Your task to perform on an android device: find photos in the google photos app Image 0: 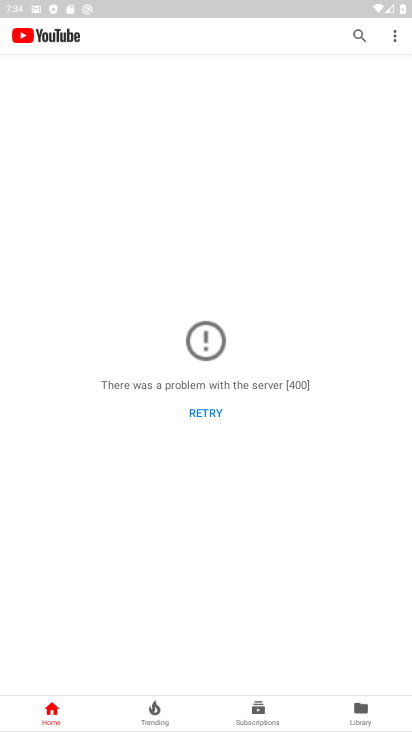
Step 0: click (298, 333)
Your task to perform on an android device: find photos in the google photos app Image 1: 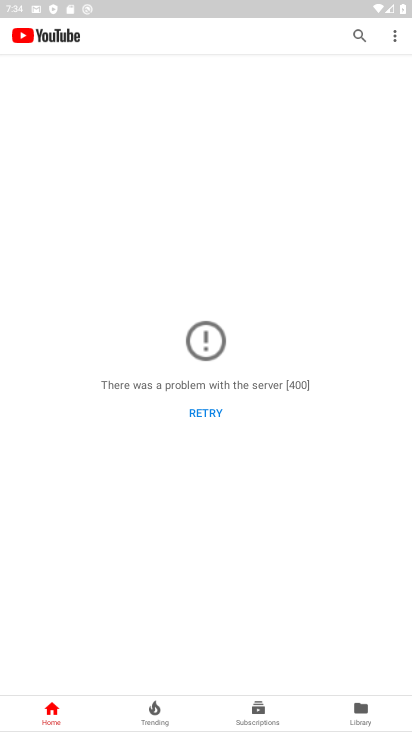
Step 1: click (284, 225)
Your task to perform on an android device: find photos in the google photos app Image 2: 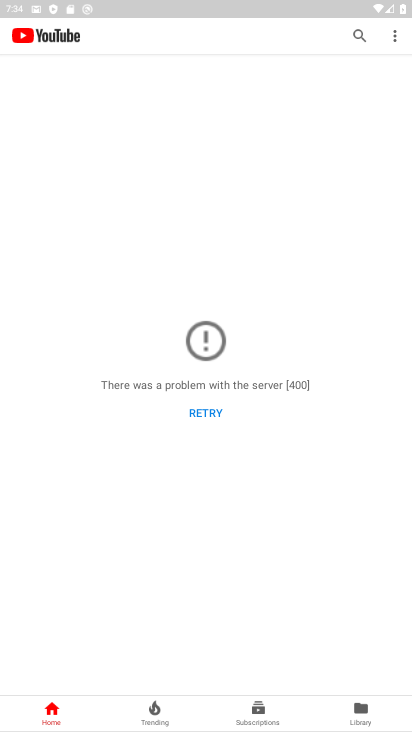
Step 2: click (179, 421)
Your task to perform on an android device: find photos in the google photos app Image 3: 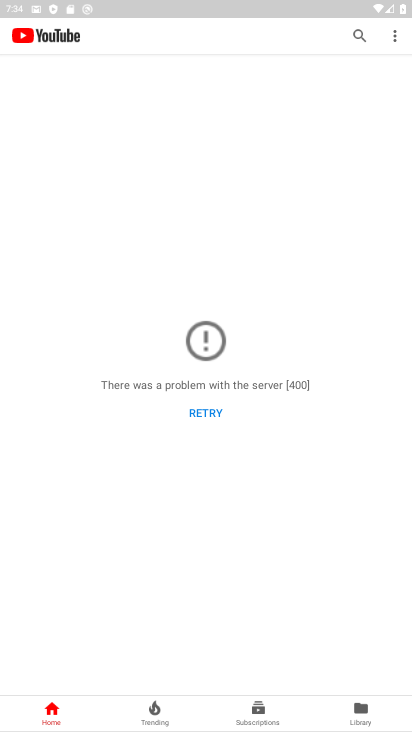
Step 3: click (200, 418)
Your task to perform on an android device: find photos in the google photos app Image 4: 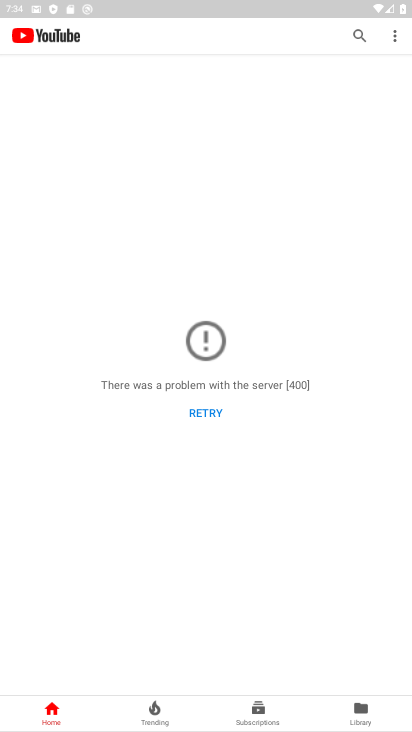
Step 4: click (200, 418)
Your task to perform on an android device: find photos in the google photos app Image 5: 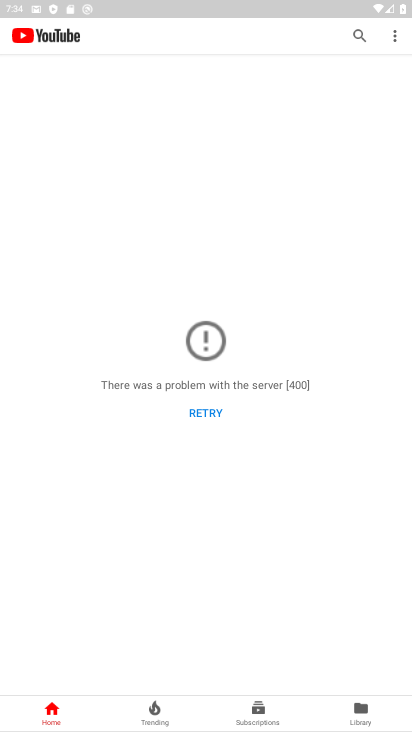
Step 5: click (285, 454)
Your task to perform on an android device: find photos in the google photos app Image 6: 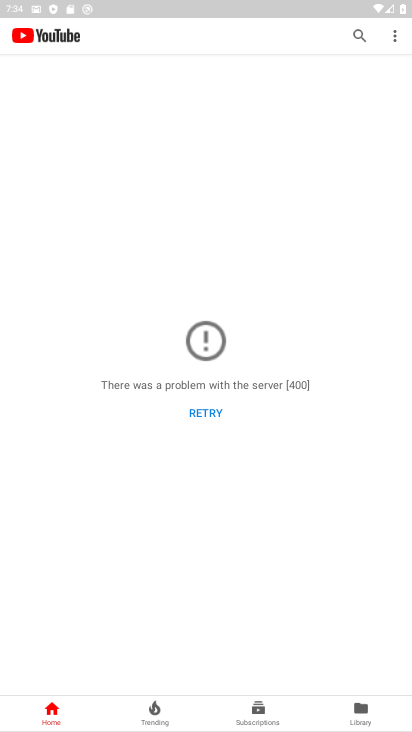
Step 6: click (201, 409)
Your task to perform on an android device: find photos in the google photos app Image 7: 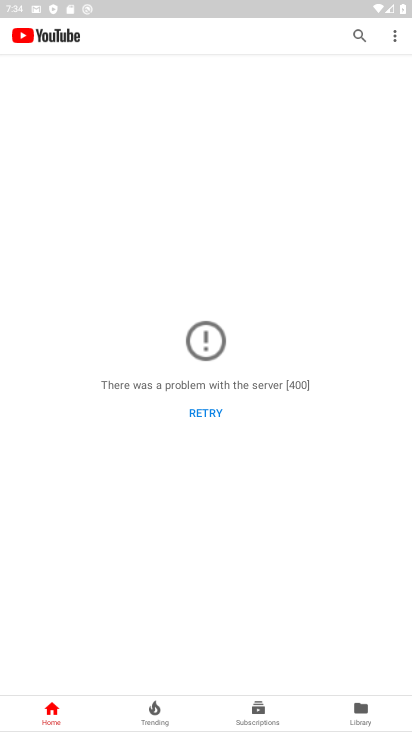
Step 7: click (258, 490)
Your task to perform on an android device: find photos in the google photos app Image 8: 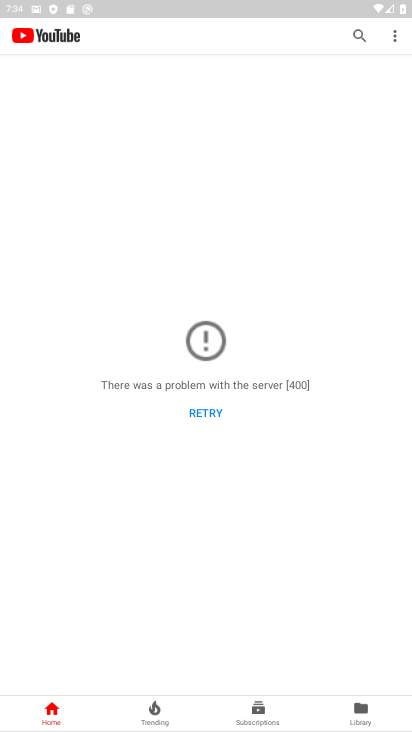
Step 8: drag from (248, 630) to (265, 361)
Your task to perform on an android device: find photos in the google photos app Image 9: 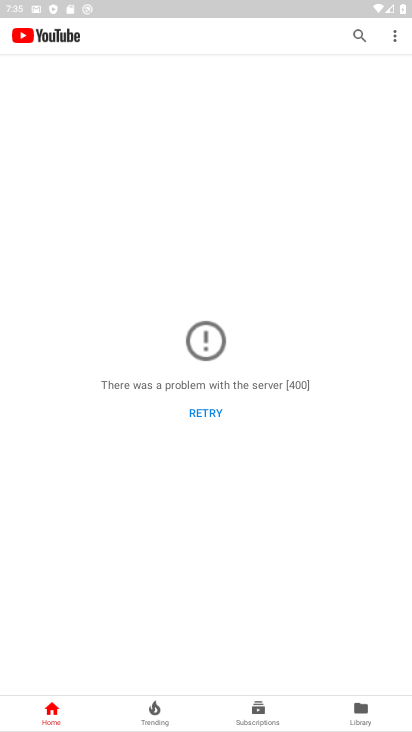
Step 9: drag from (113, 516) to (122, 452)
Your task to perform on an android device: find photos in the google photos app Image 10: 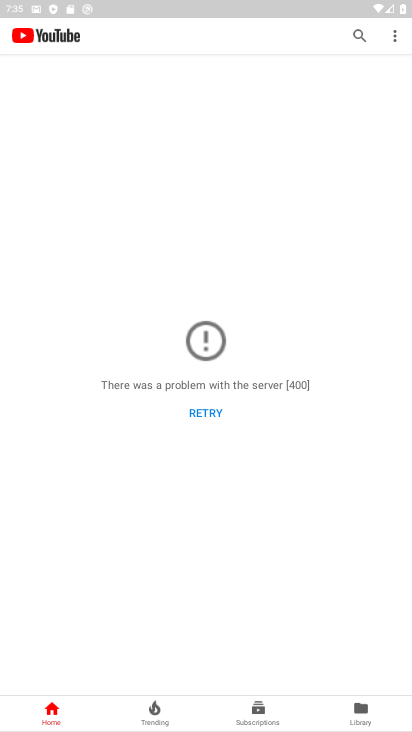
Step 10: press home button
Your task to perform on an android device: find photos in the google photos app Image 11: 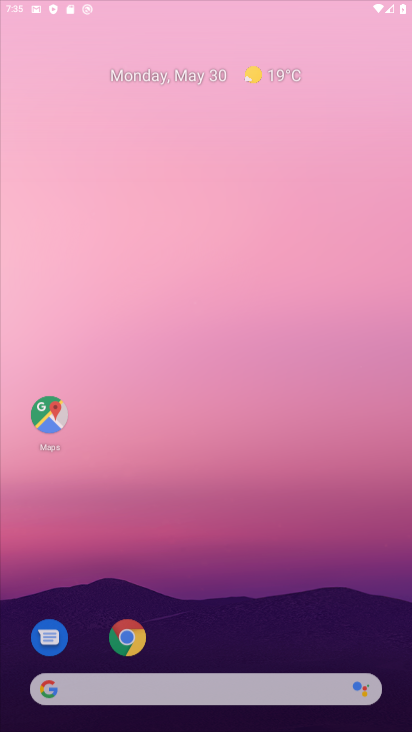
Step 11: drag from (218, 611) to (203, 2)
Your task to perform on an android device: find photos in the google photos app Image 12: 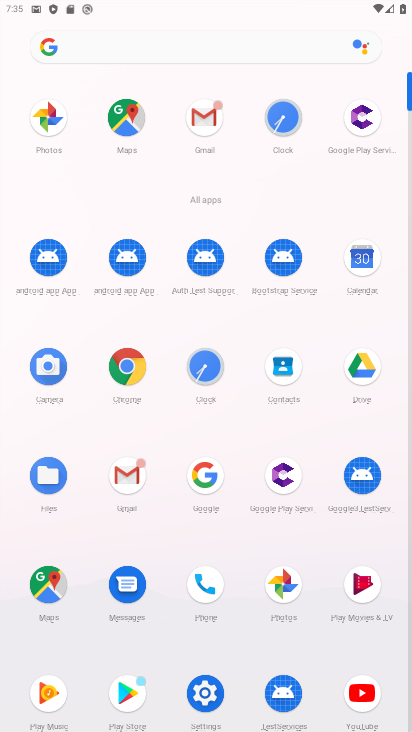
Step 12: drag from (238, 562) to (247, 189)
Your task to perform on an android device: find photos in the google photos app Image 13: 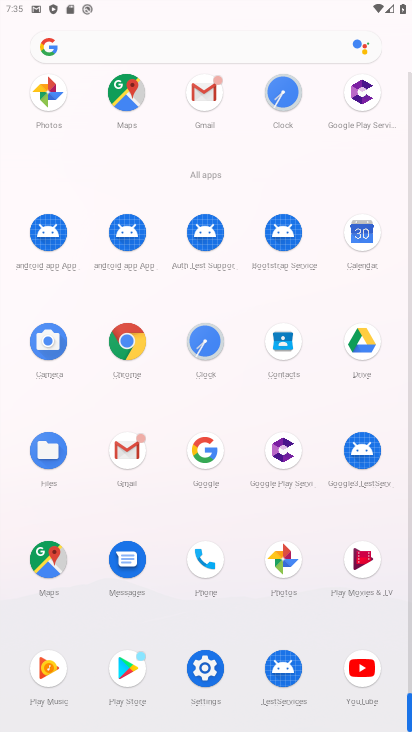
Step 13: click (286, 548)
Your task to perform on an android device: find photos in the google photos app Image 14: 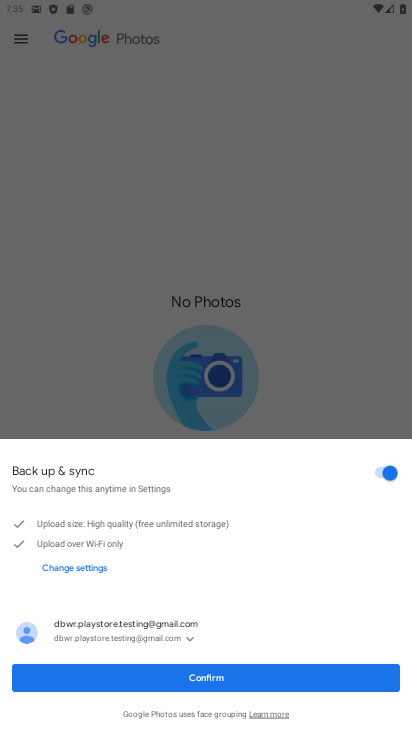
Step 14: click (198, 677)
Your task to perform on an android device: find photos in the google photos app Image 15: 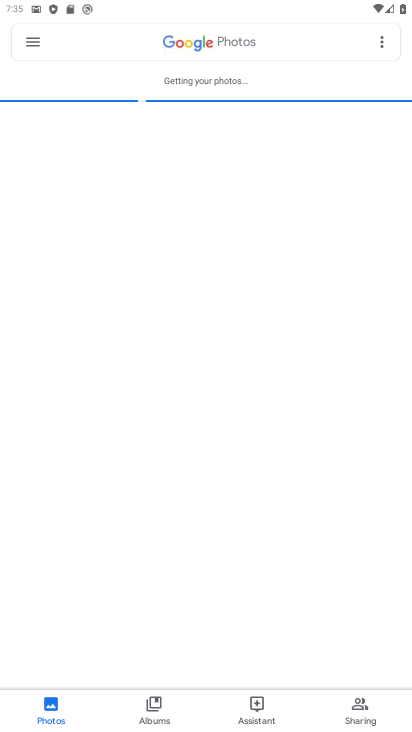
Step 15: drag from (253, 516) to (357, 118)
Your task to perform on an android device: find photos in the google photos app Image 16: 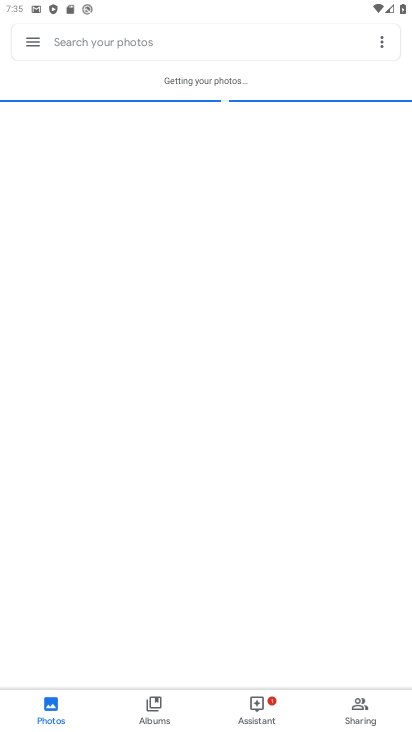
Step 16: click (151, 696)
Your task to perform on an android device: find photos in the google photos app Image 17: 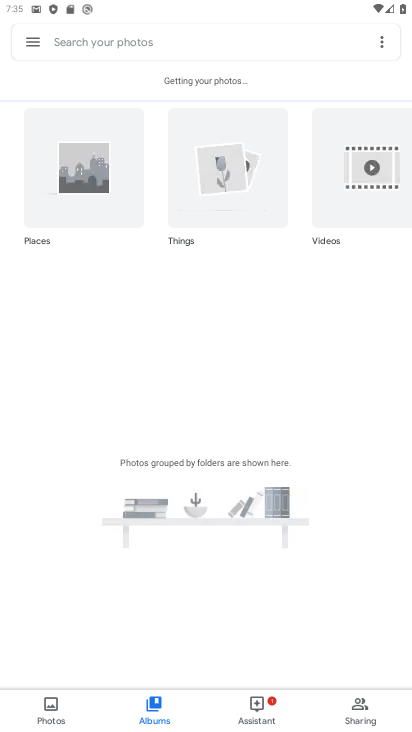
Step 17: click (78, 716)
Your task to perform on an android device: find photos in the google photos app Image 18: 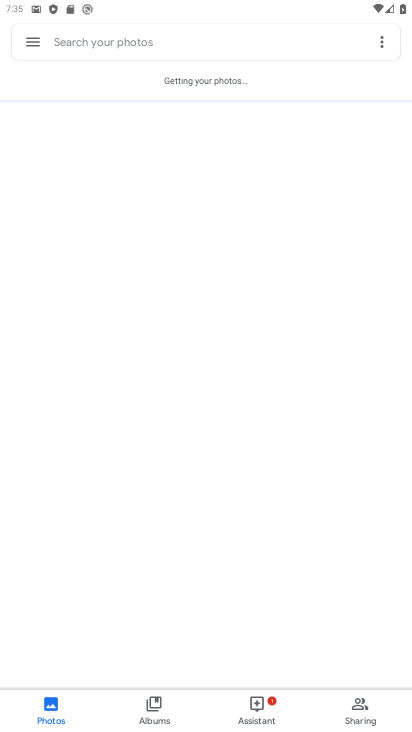
Step 18: drag from (187, 302) to (239, 571)
Your task to perform on an android device: find photos in the google photos app Image 19: 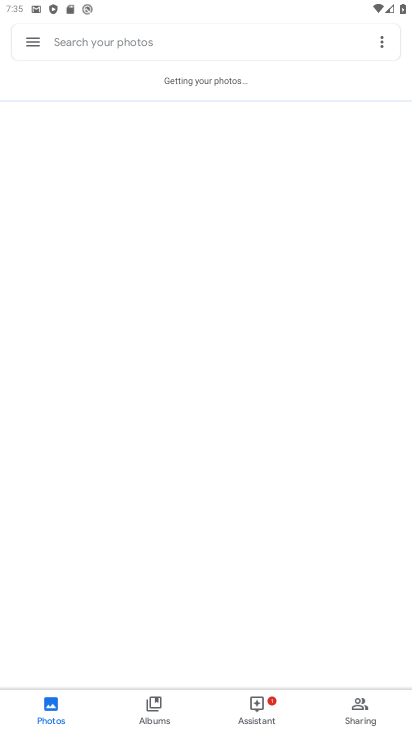
Step 19: drag from (162, 291) to (231, 521)
Your task to perform on an android device: find photos in the google photos app Image 20: 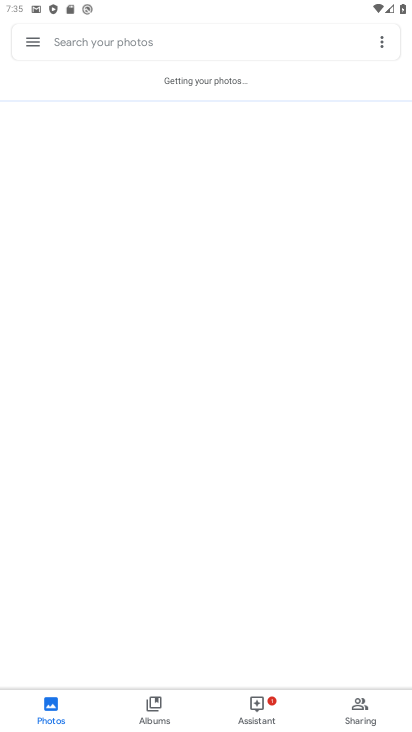
Step 20: click (137, 228)
Your task to perform on an android device: find photos in the google photos app Image 21: 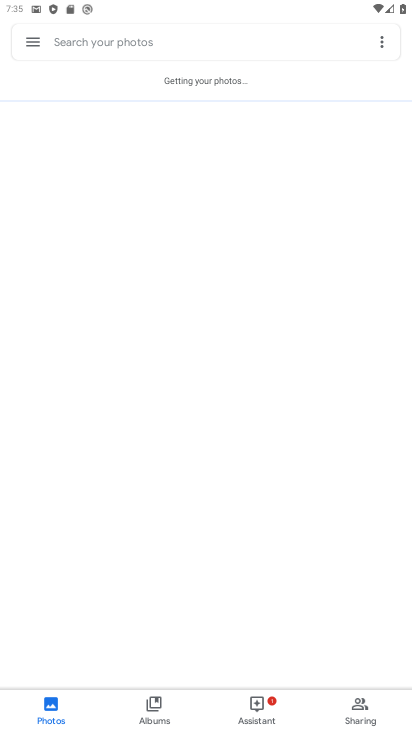
Step 21: click (157, 708)
Your task to perform on an android device: find photos in the google photos app Image 22: 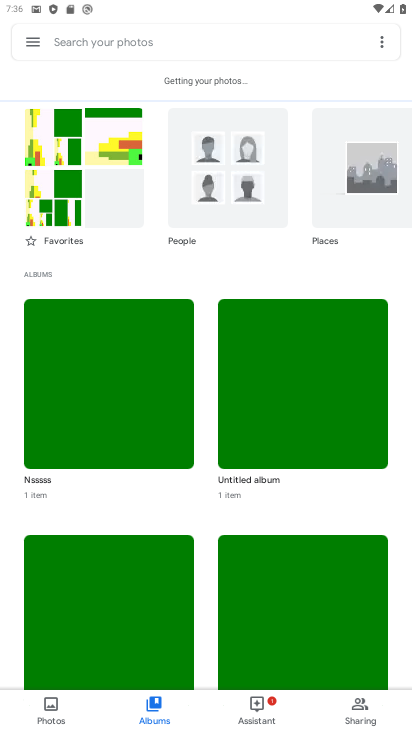
Step 22: click (100, 199)
Your task to perform on an android device: find photos in the google photos app Image 23: 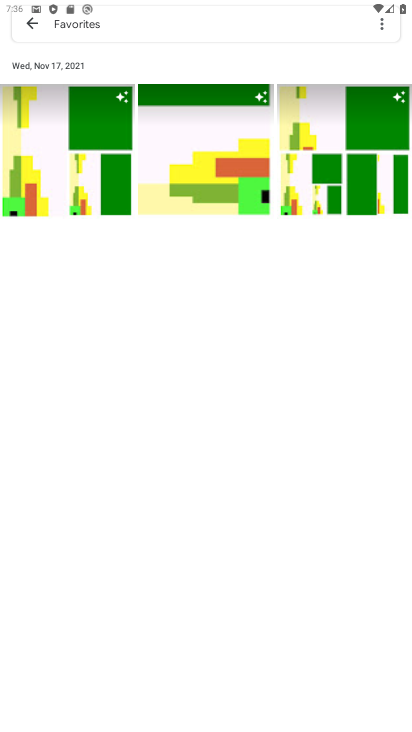
Step 23: click (134, 186)
Your task to perform on an android device: find photos in the google photos app Image 24: 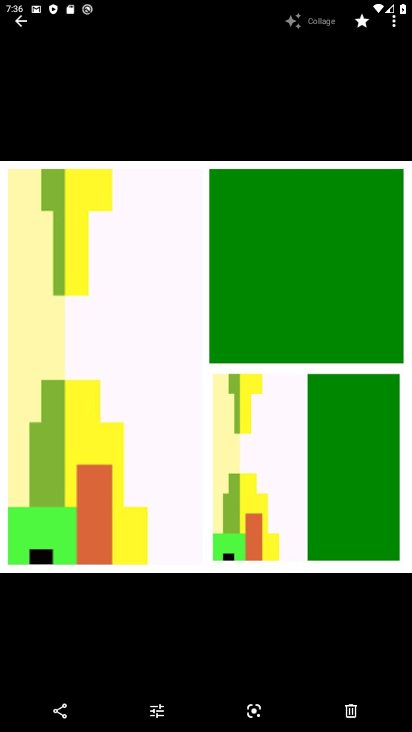
Step 24: task complete